Your task to perform on an android device: Search for pizza restaurants on Maps Image 0: 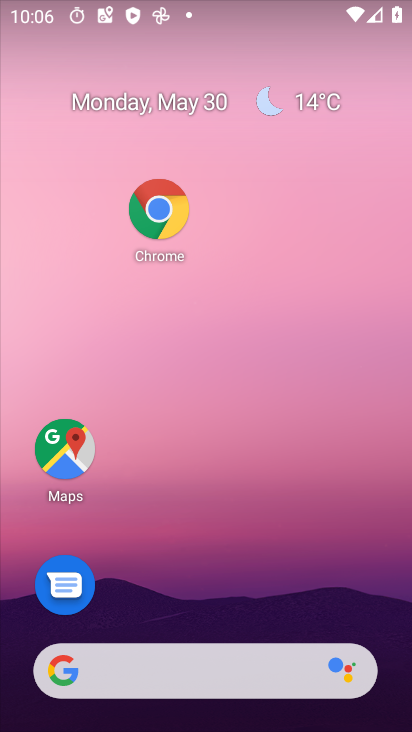
Step 0: drag from (195, 597) to (269, 147)
Your task to perform on an android device: Search for pizza restaurants on Maps Image 1: 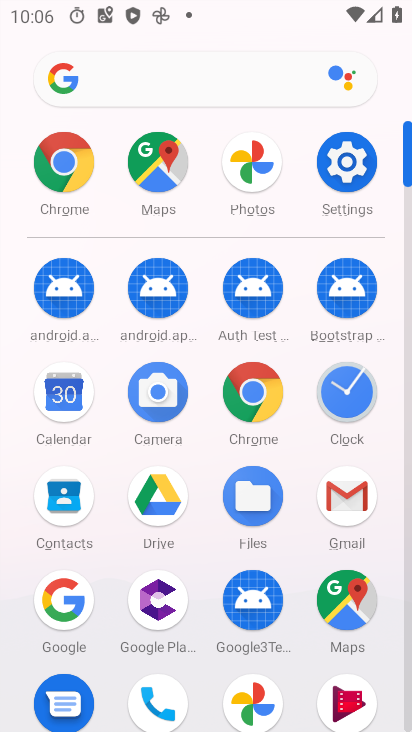
Step 1: click (348, 603)
Your task to perform on an android device: Search for pizza restaurants on Maps Image 2: 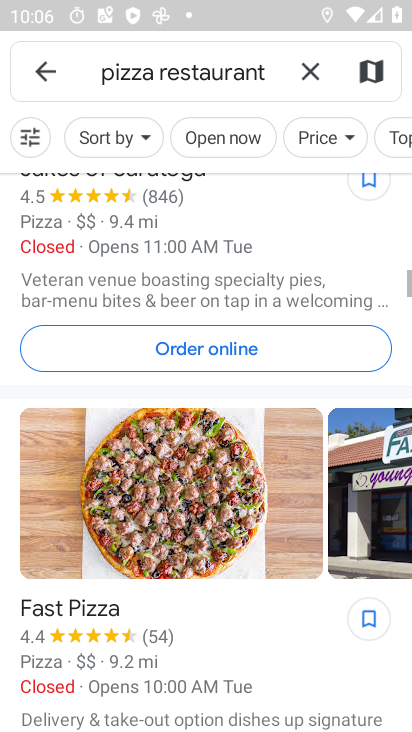
Step 2: task complete